Your task to perform on an android device: turn pop-ups off in chrome Image 0: 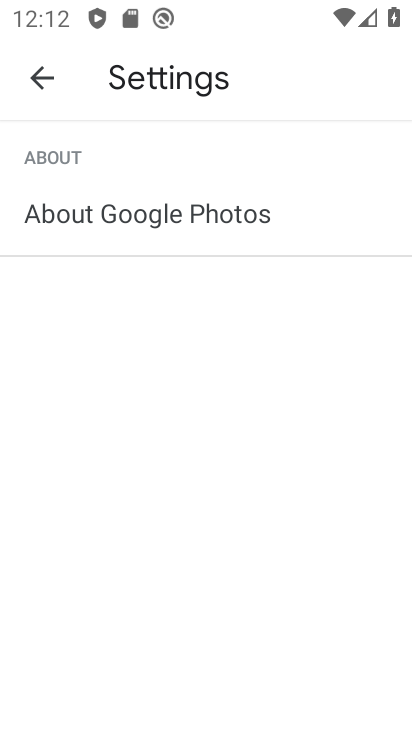
Step 0: press home button
Your task to perform on an android device: turn pop-ups off in chrome Image 1: 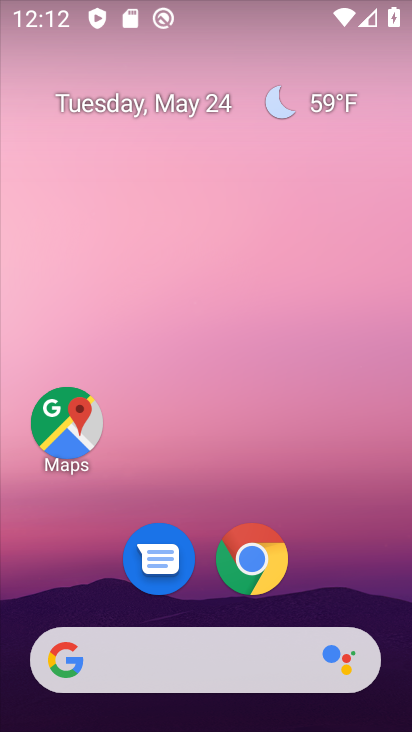
Step 1: drag from (386, 634) to (302, 7)
Your task to perform on an android device: turn pop-ups off in chrome Image 2: 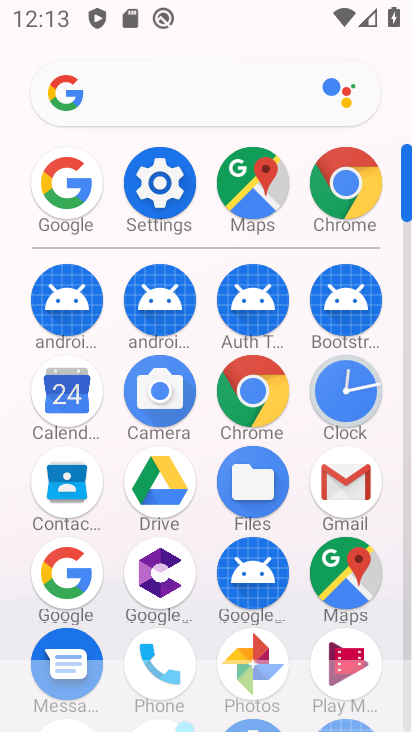
Step 2: click (347, 196)
Your task to perform on an android device: turn pop-ups off in chrome Image 3: 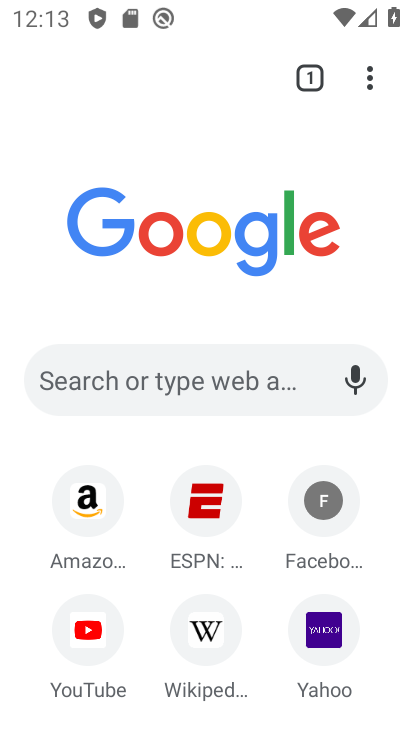
Step 3: click (365, 61)
Your task to perform on an android device: turn pop-ups off in chrome Image 4: 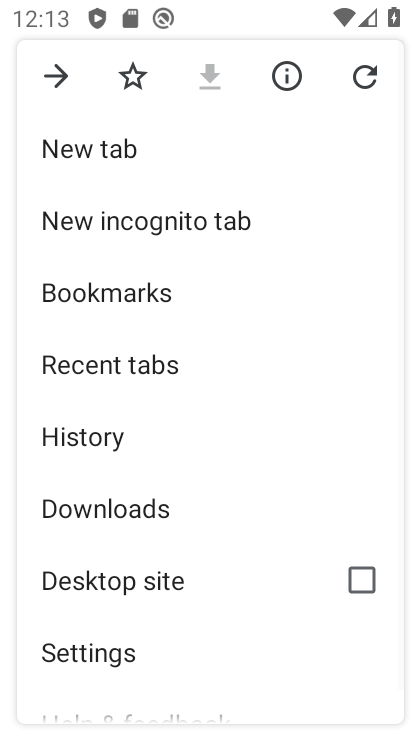
Step 4: click (154, 656)
Your task to perform on an android device: turn pop-ups off in chrome Image 5: 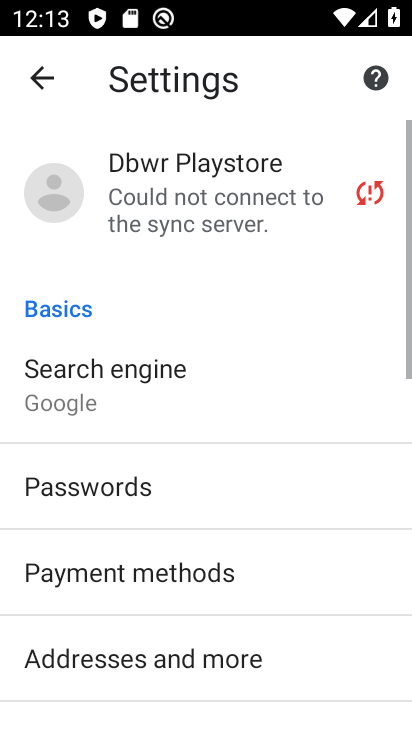
Step 5: drag from (154, 656) to (246, 121)
Your task to perform on an android device: turn pop-ups off in chrome Image 6: 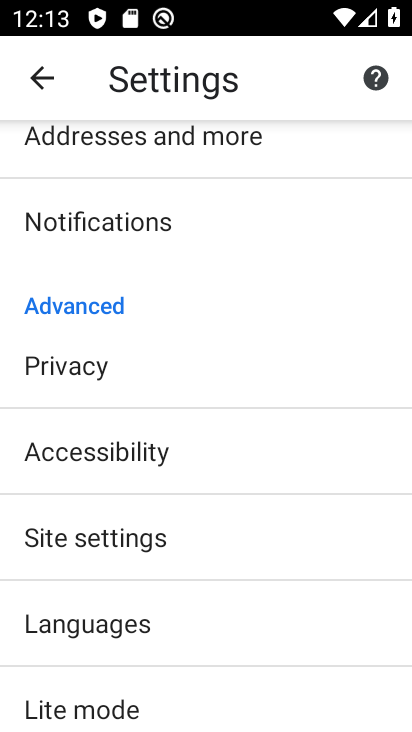
Step 6: click (162, 561)
Your task to perform on an android device: turn pop-ups off in chrome Image 7: 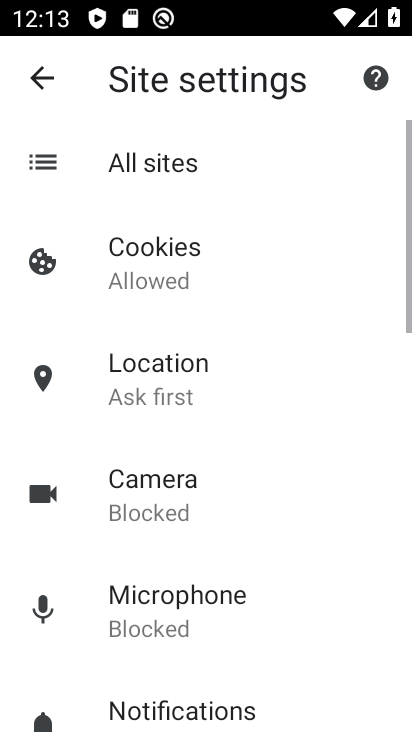
Step 7: drag from (196, 668) to (233, 206)
Your task to perform on an android device: turn pop-ups off in chrome Image 8: 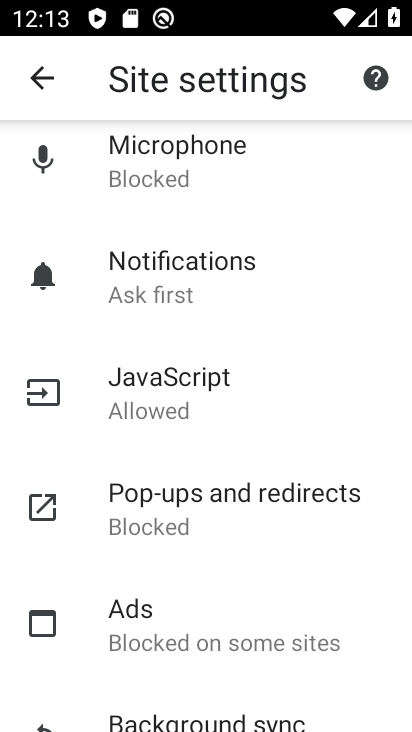
Step 8: click (237, 519)
Your task to perform on an android device: turn pop-ups off in chrome Image 9: 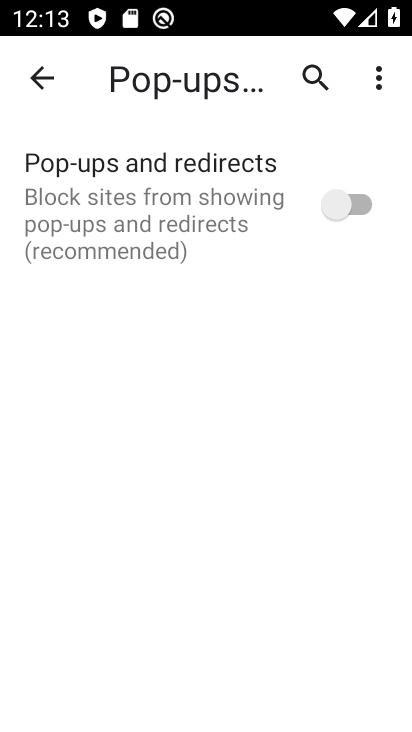
Step 9: click (363, 212)
Your task to perform on an android device: turn pop-ups off in chrome Image 10: 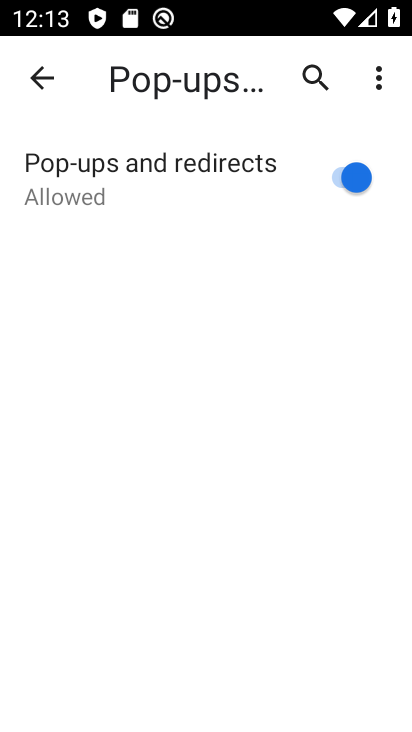
Step 10: click (363, 212)
Your task to perform on an android device: turn pop-ups off in chrome Image 11: 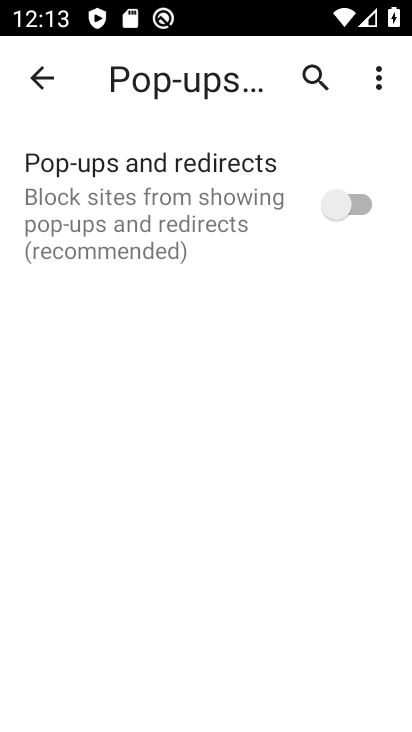
Step 11: task complete